Your task to perform on an android device: Toggle the flashlight Image 0: 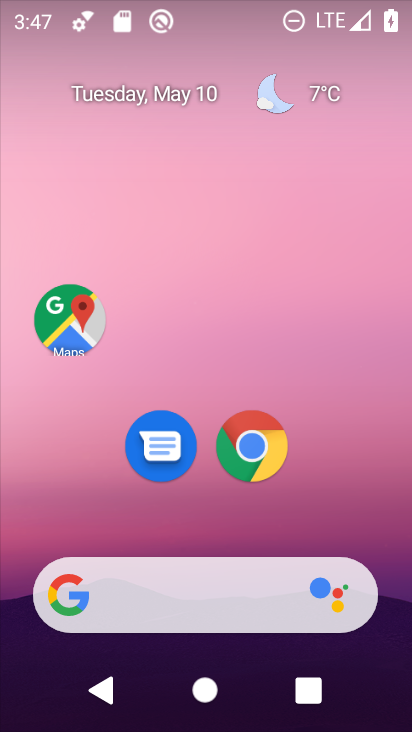
Step 0: drag from (217, 106) to (212, 455)
Your task to perform on an android device: Toggle the flashlight Image 1: 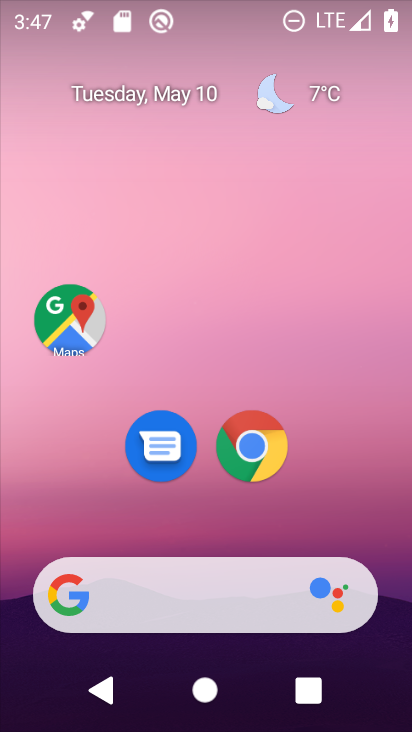
Step 1: task complete